Your task to perform on an android device: Empty the shopping cart on ebay. Add "acer nitro" to the cart on ebay Image 0: 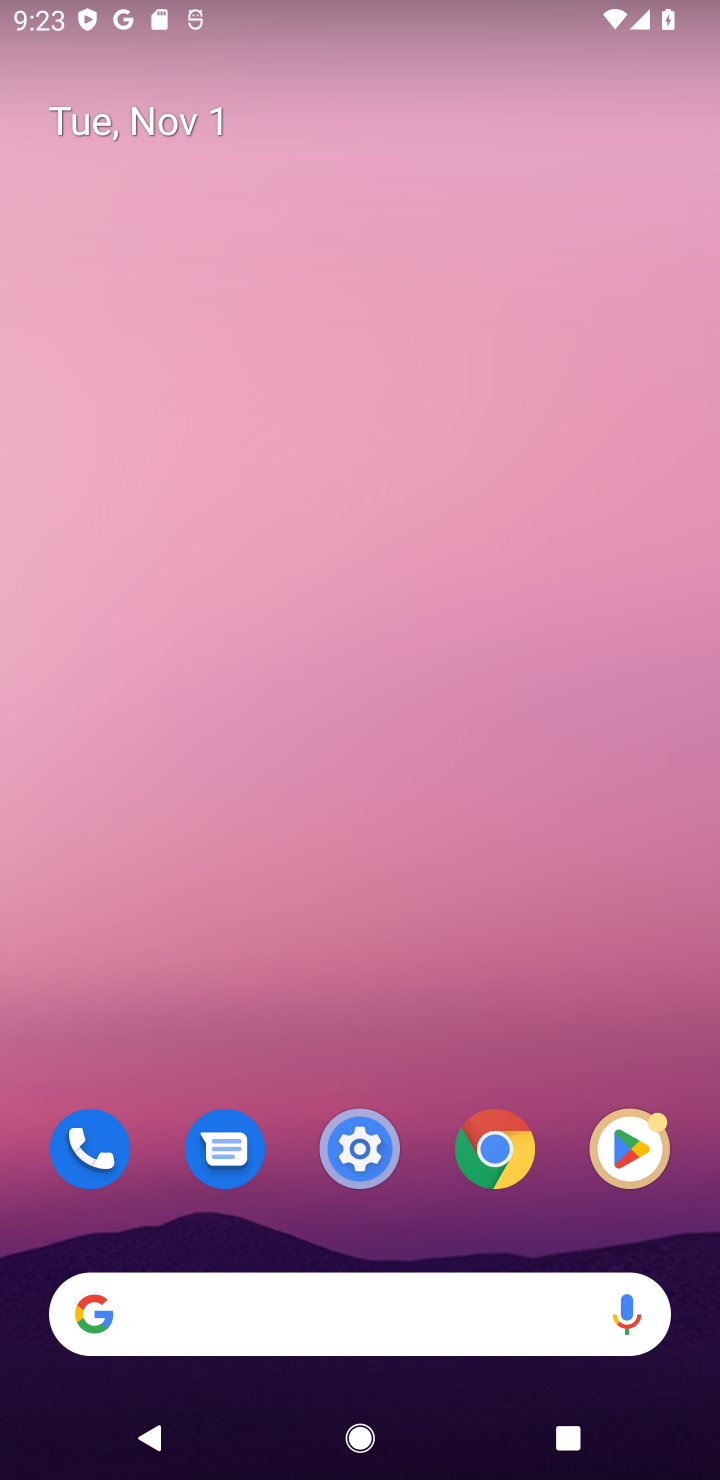
Step 0: press home button
Your task to perform on an android device: Empty the shopping cart on ebay. Add "acer nitro" to the cart on ebay Image 1: 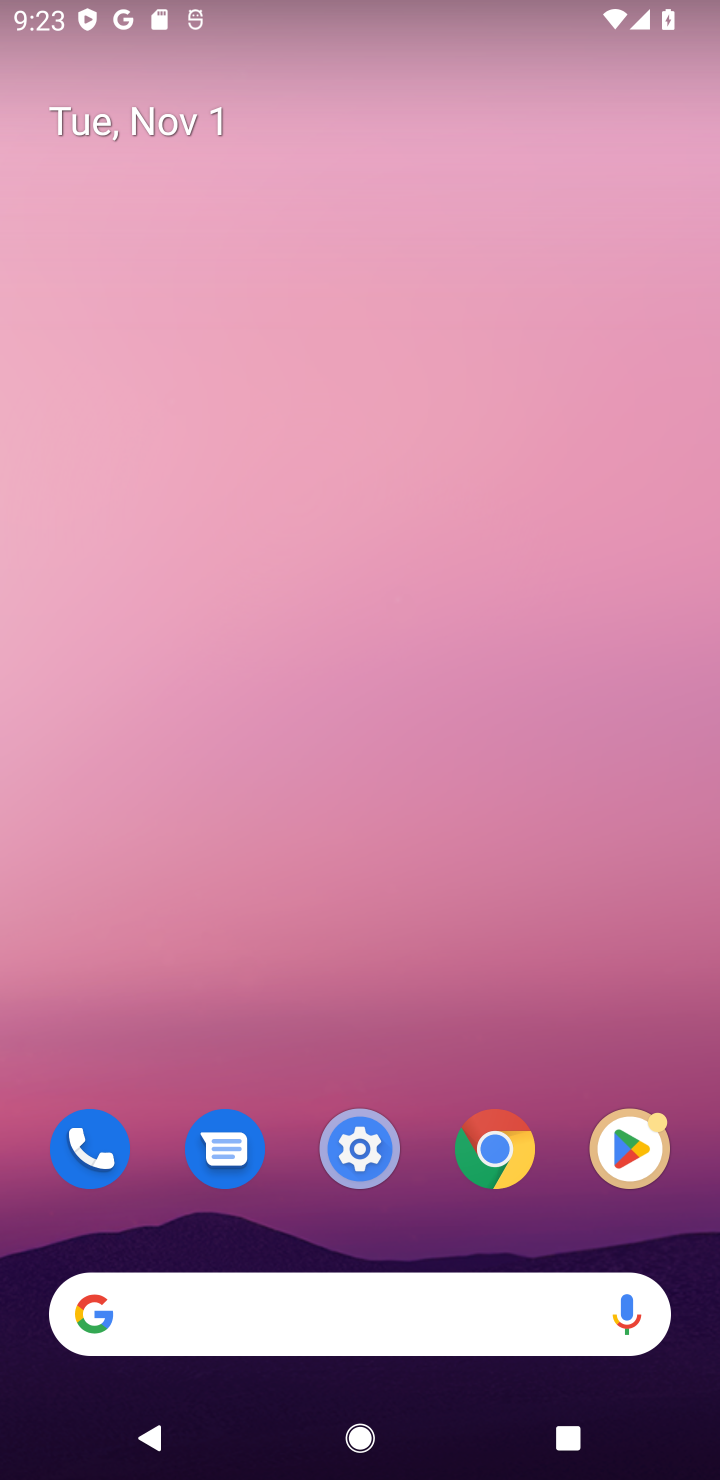
Step 1: click (134, 1305)
Your task to perform on an android device: Empty the shopping cart on ebay. Add "acer nitro" to the cart on ebay Image 2: 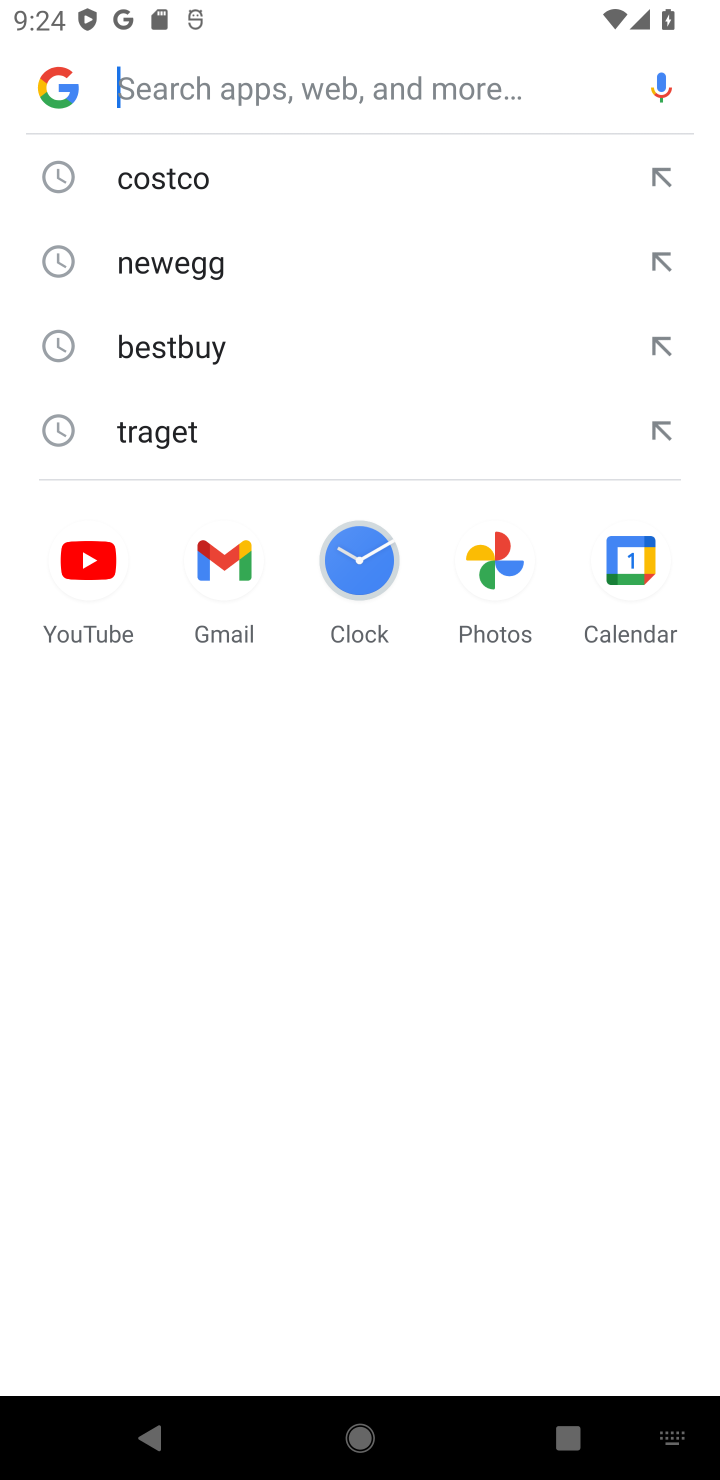
Step 2: type "ebay"
Your task to perform on an android device: Empty the shopping cart on ebay. Add "acer nitro" to the cart on ebay Image 3: 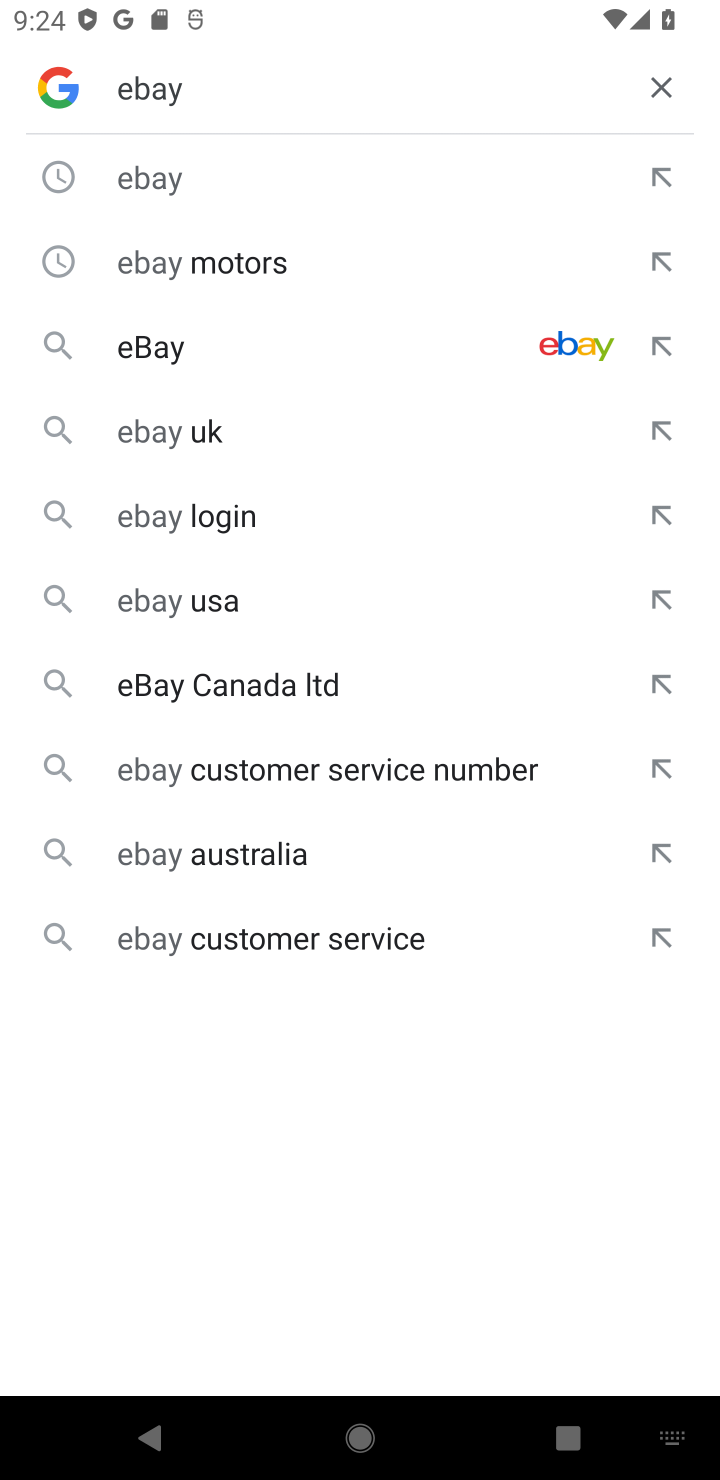
Step 3: click (188, 180)
Your task to perform on an android device: Empty the shopping cart on ebay. Add "acer nitro" to the cart on ebay Image 4: 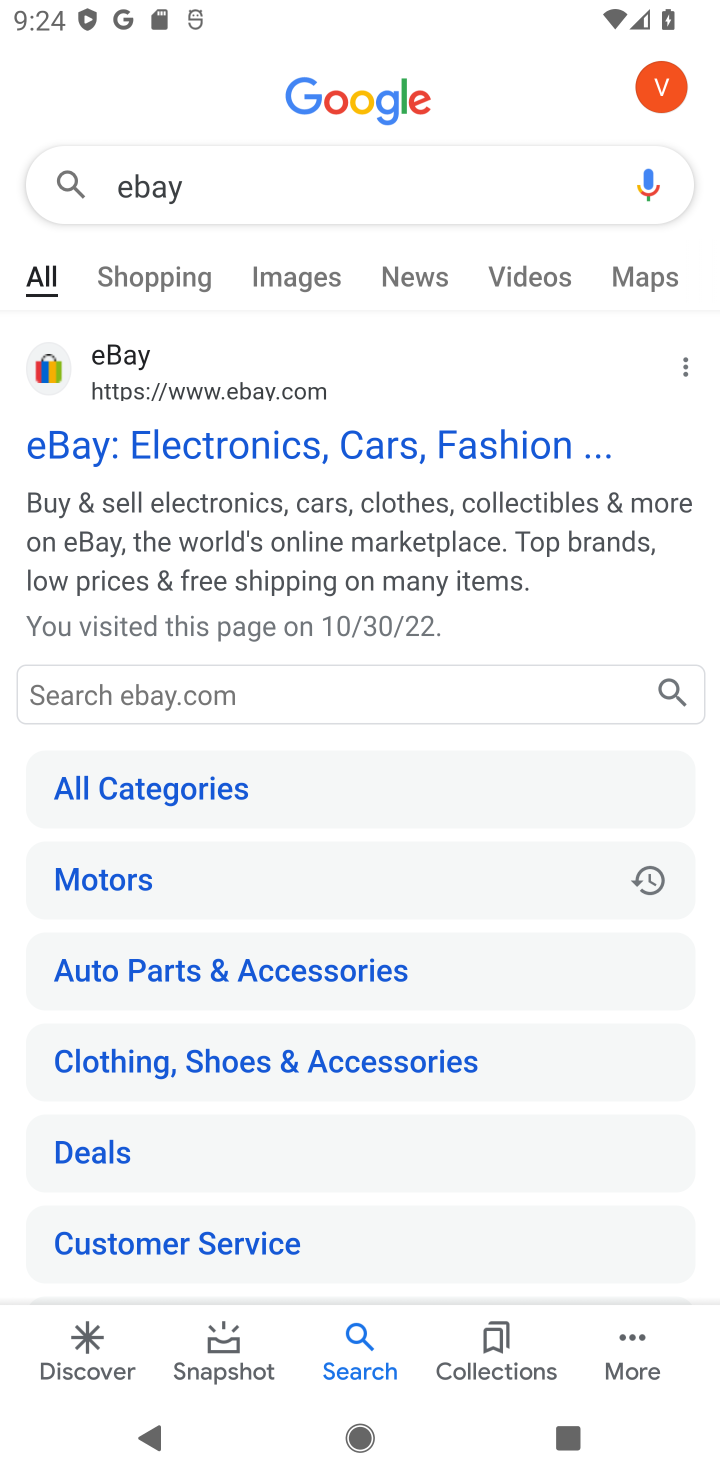
Step 4: click (303, 450)
Your task to perform on an android device: Empty the shopping cart on ebay. Add "acer nitro" to the cart on ebay Image 5: 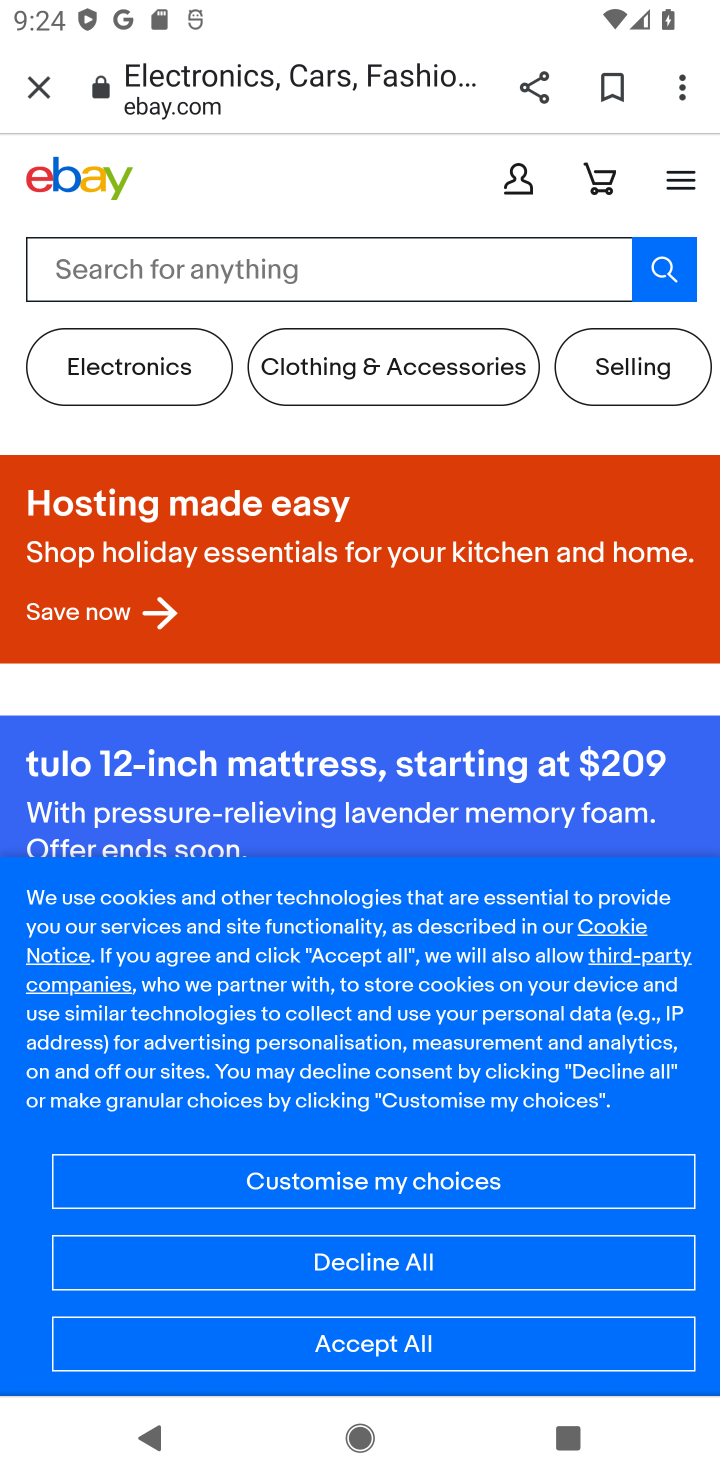
Step 5: click (465, 1344)
Your task to perform on an android device: Empty the shopping cart on ebay. Add "acer nitro" to the cart on ebay Image 6: 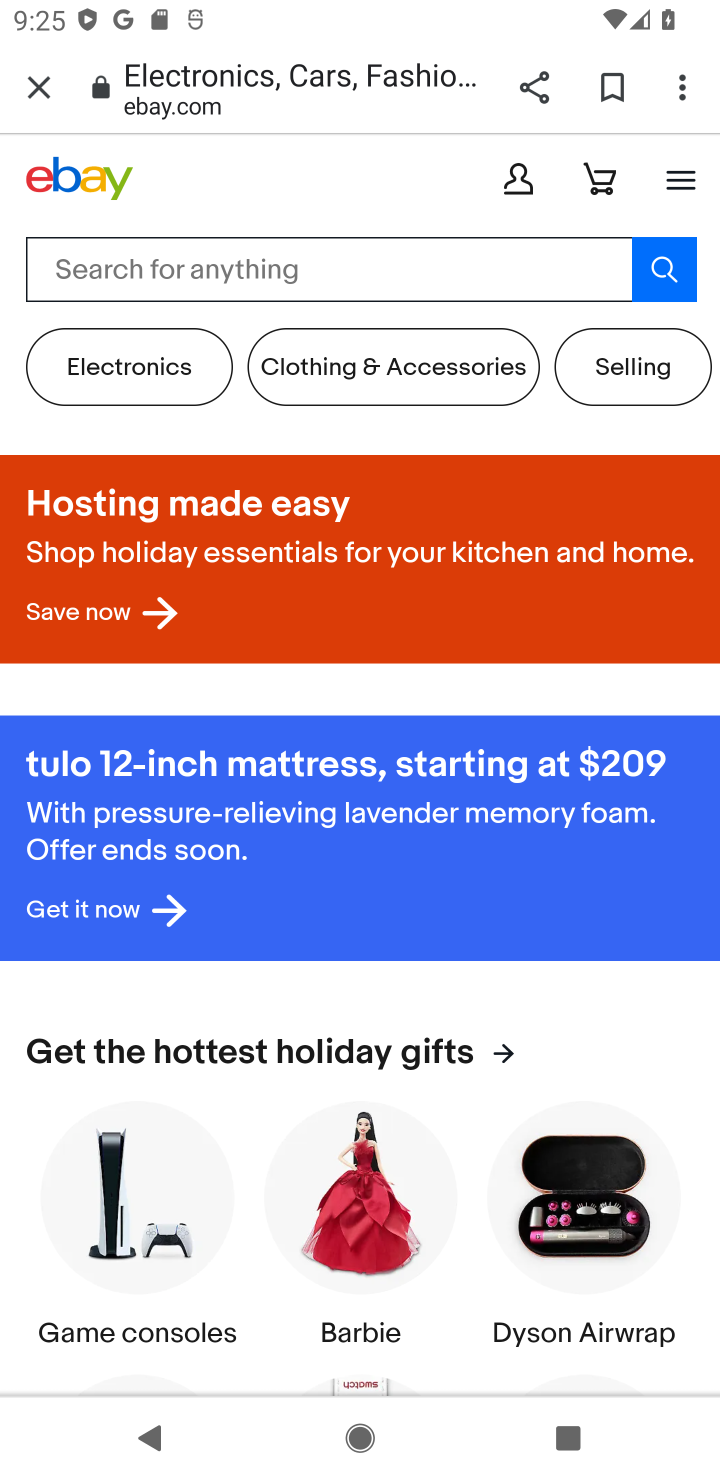
Step 6: type "acer nitro"
Your task to perform on an android device: Empty the shopping cart on ebay. Add "acer nitro" to the cart on ebay Image 7: 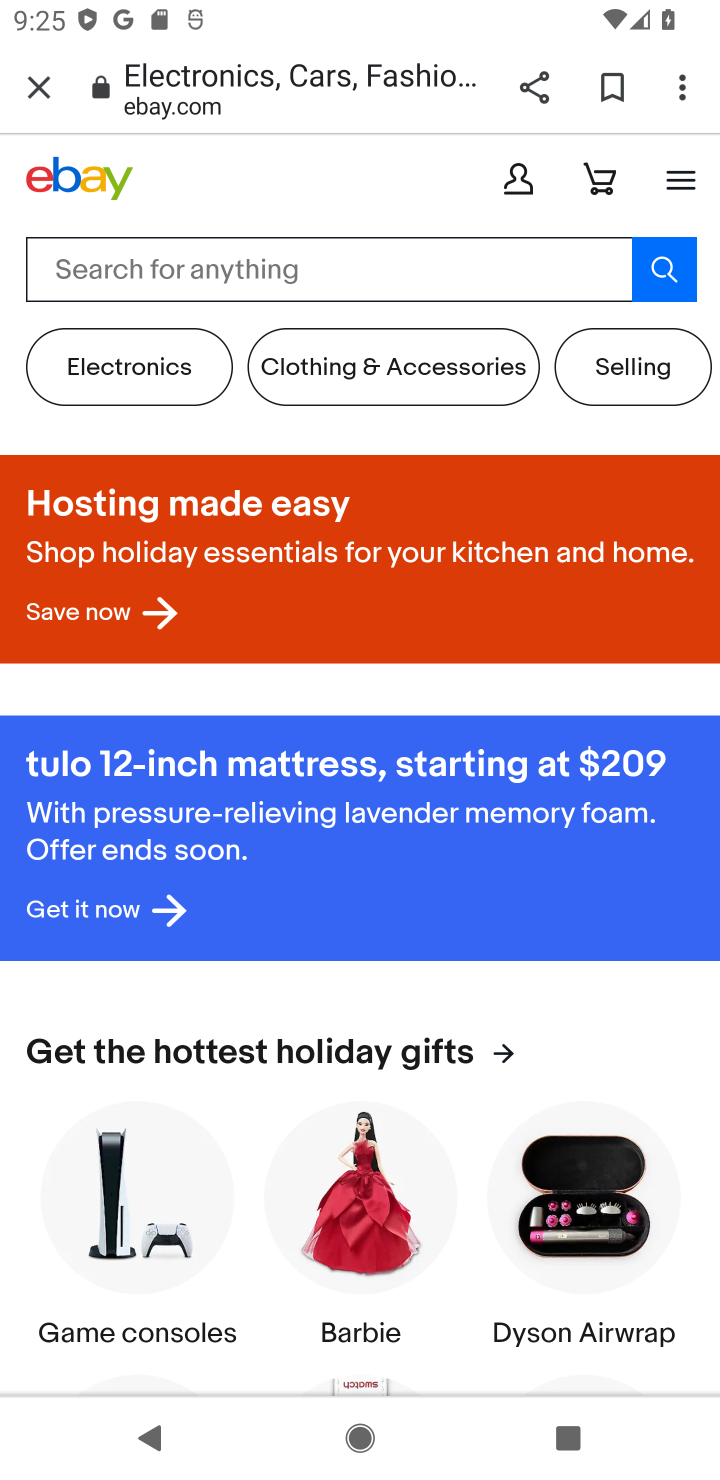
Step 7: press enter
Your task to perform on an android device: Empty the shopping cart on ebay. Add "acer nitro" to the cart on ebay Image 8: 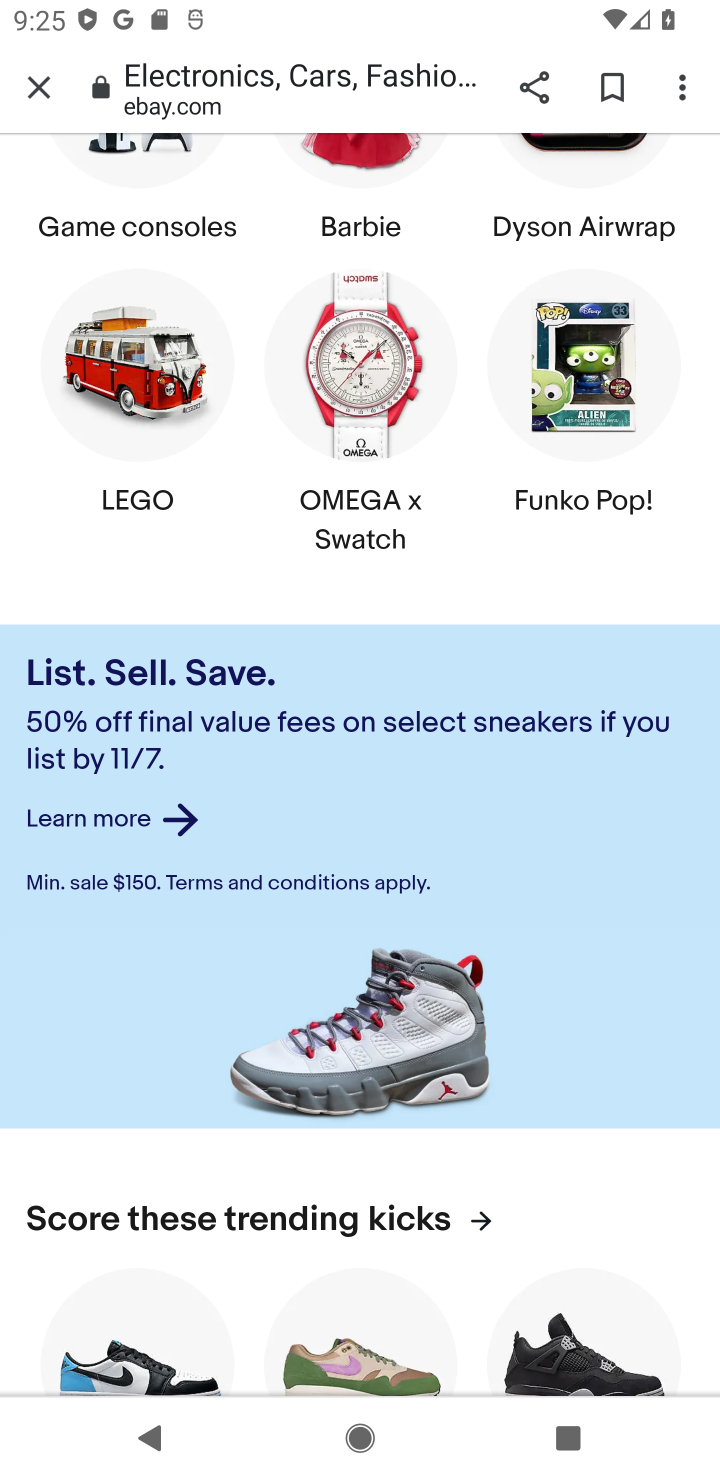
Step 8: task complete